Your task to perform on an android device: Open battery settings Image 0: 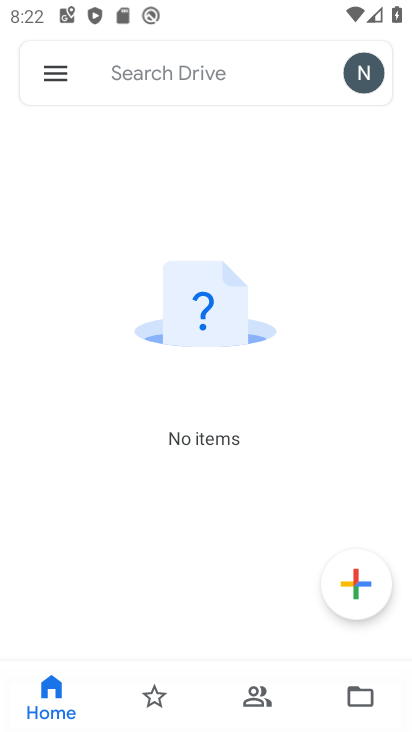
Step 0: press home button
Your task to perform on an android device: Open battery settings Image 1: 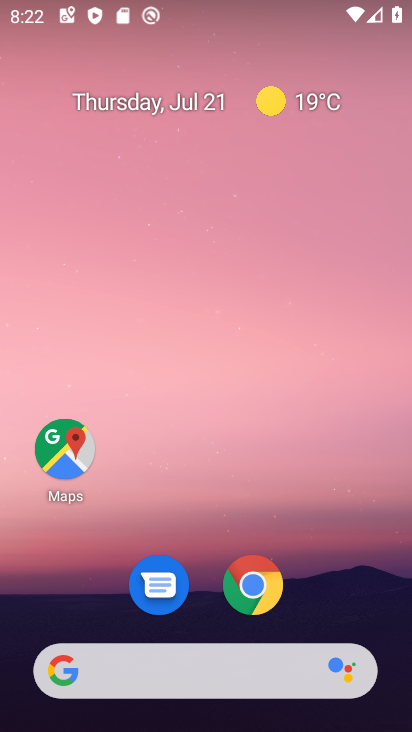
Step 1: drag from (322, 536) to (312, 24)
Your task to perform on an android device: Open battery settings Image 2: 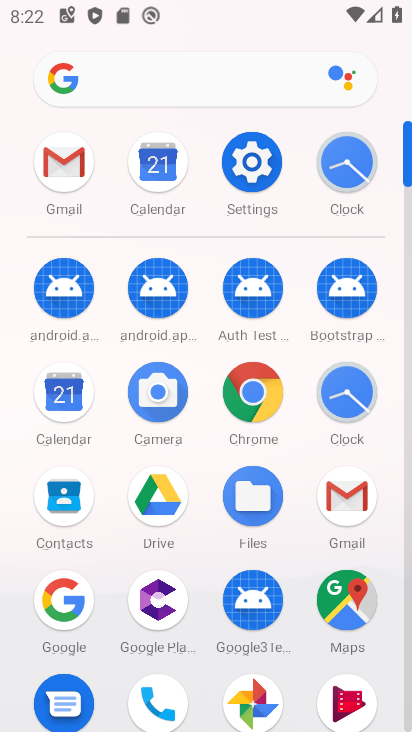
Step 2: click (251, 166)
Your task to perform on an android device: Open battery settings Image 3: 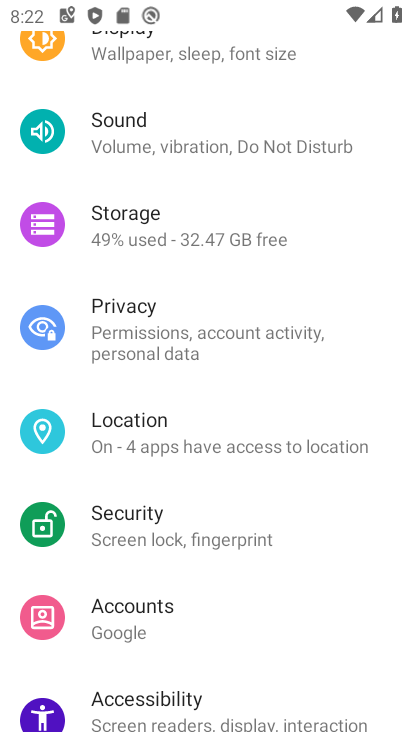
Step 3: drag from (247, 182) to (212, 671)
Your task to perform on an android device: Open battery settings Image 4: 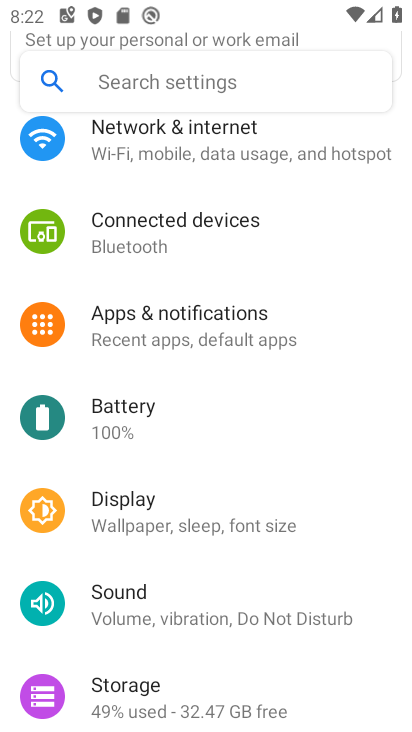
Step 4: click (181, 414)
Your task to perform on an android device: Open battery settings Image 5: 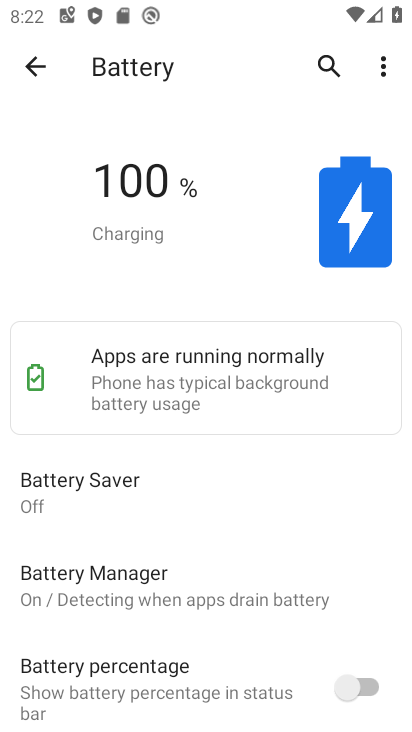
Step 5: task complete